Your task to perform on an android device: Open battery settings Image 0: 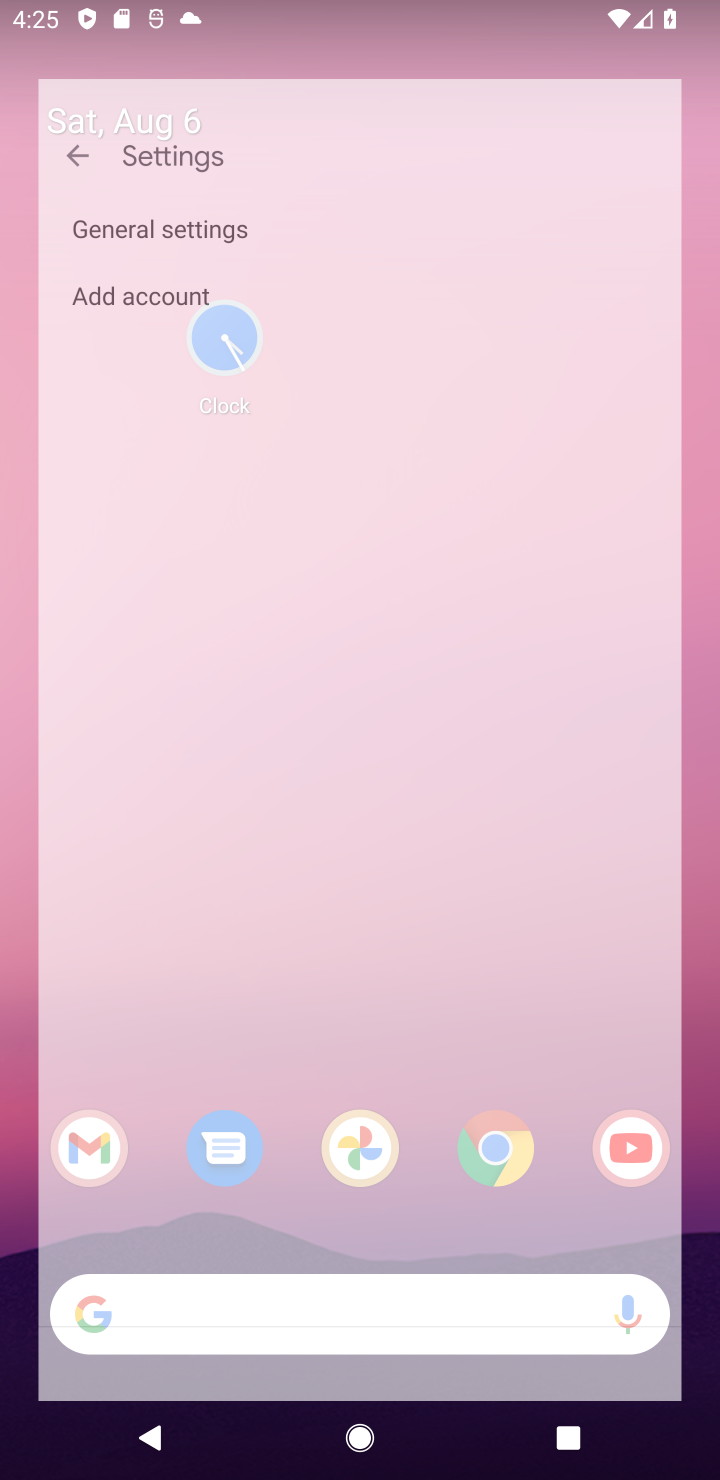
Step 0: drag from (420, 578) to (466, 364)
Your task to perform on an android device: Open battery settings Image 1: 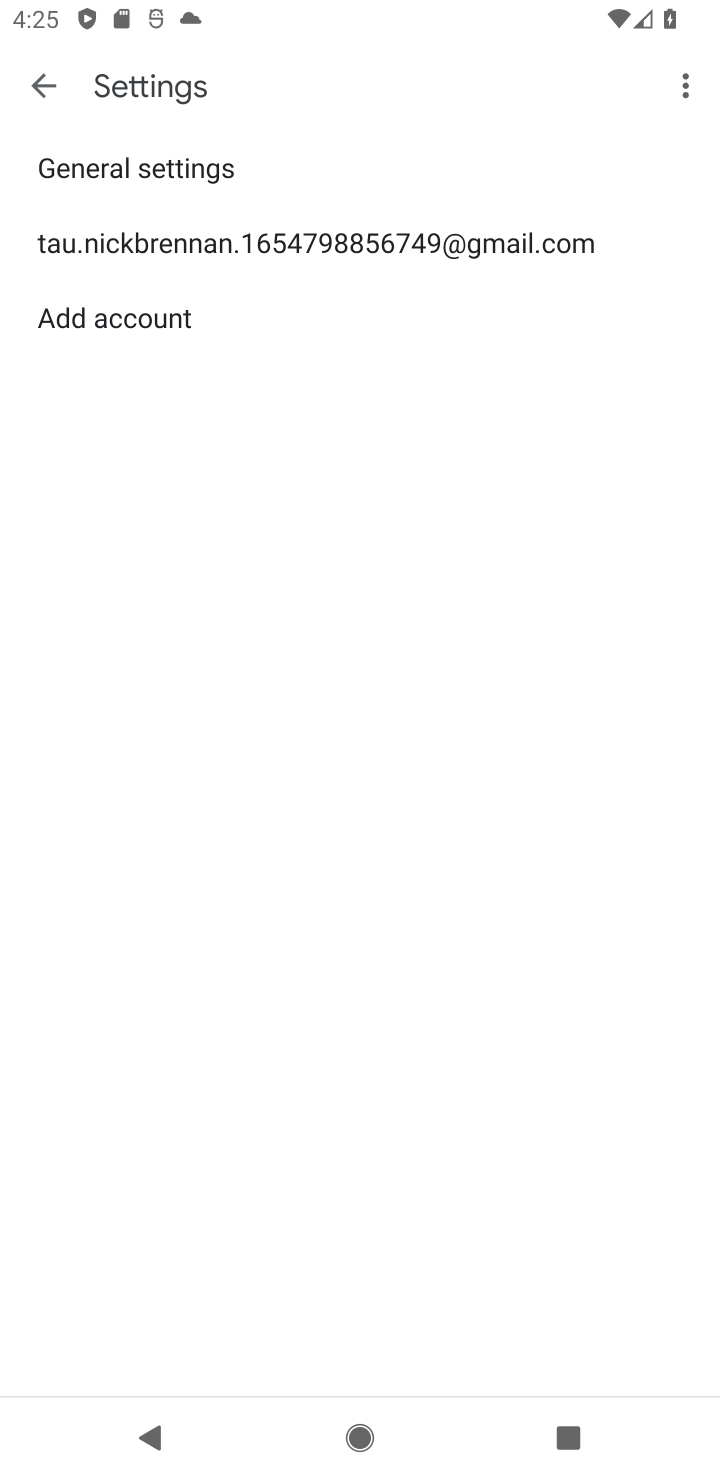
Step 1: press home button
Your task to perform on an android device: Open battery settings Image 2: 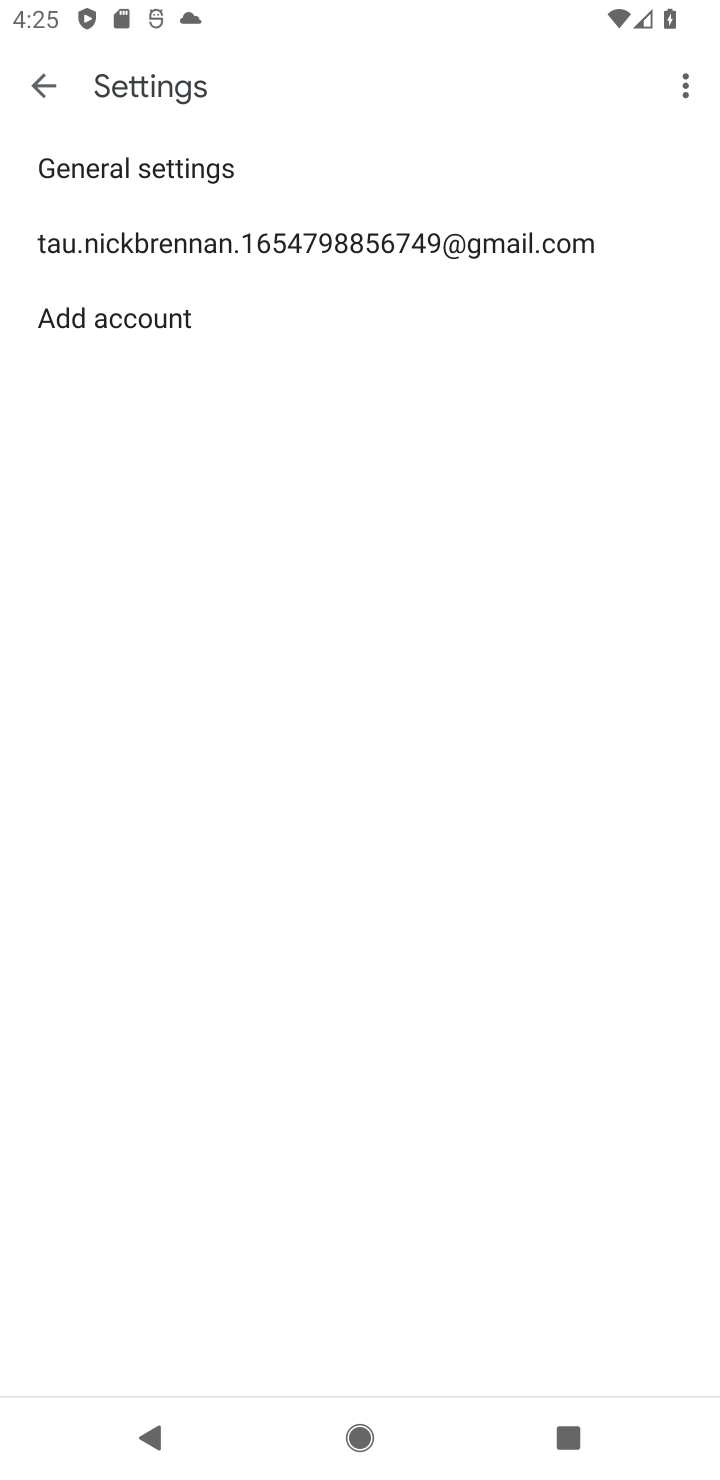
Step 2: press home button
Your task to perform on an android device: Open battery settings Image 3: 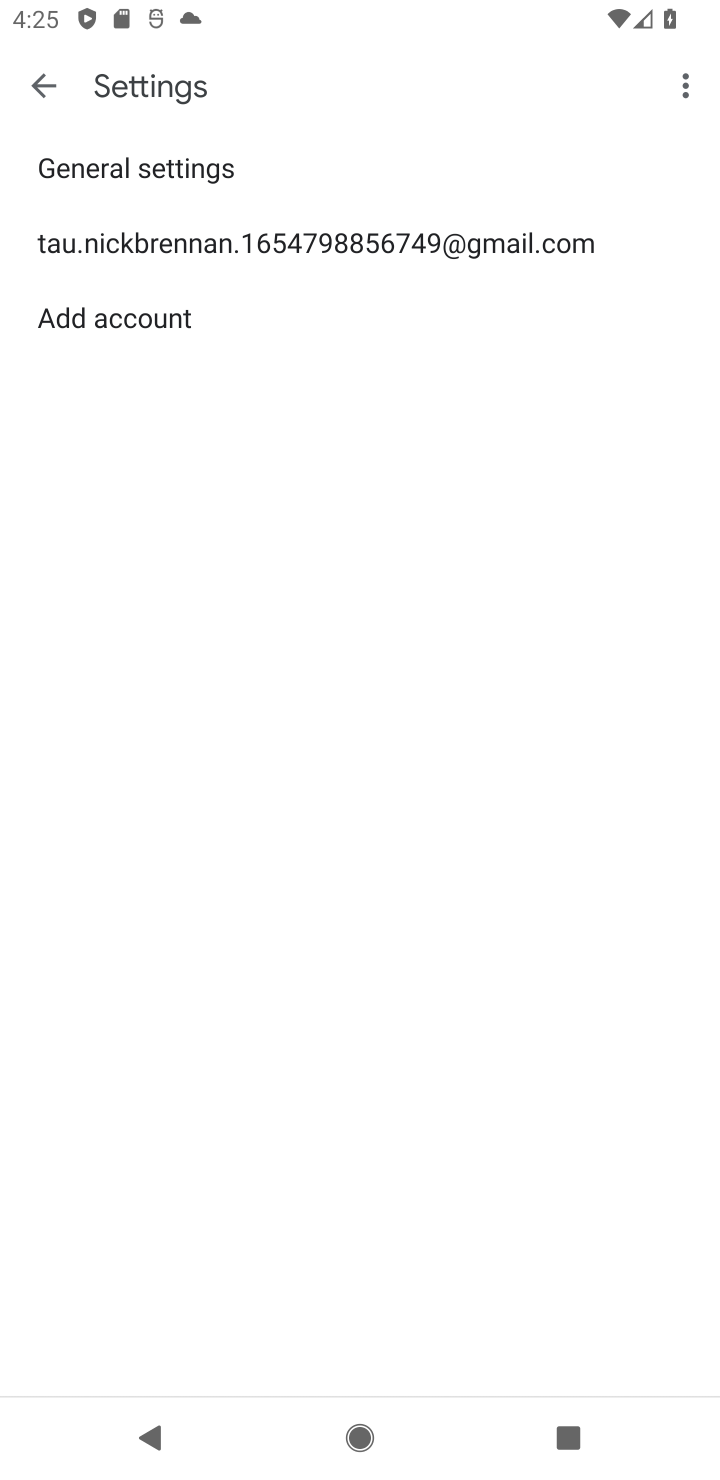
Step 3: press home button
Your task to perform on an android device: Open battery settings Image 4: 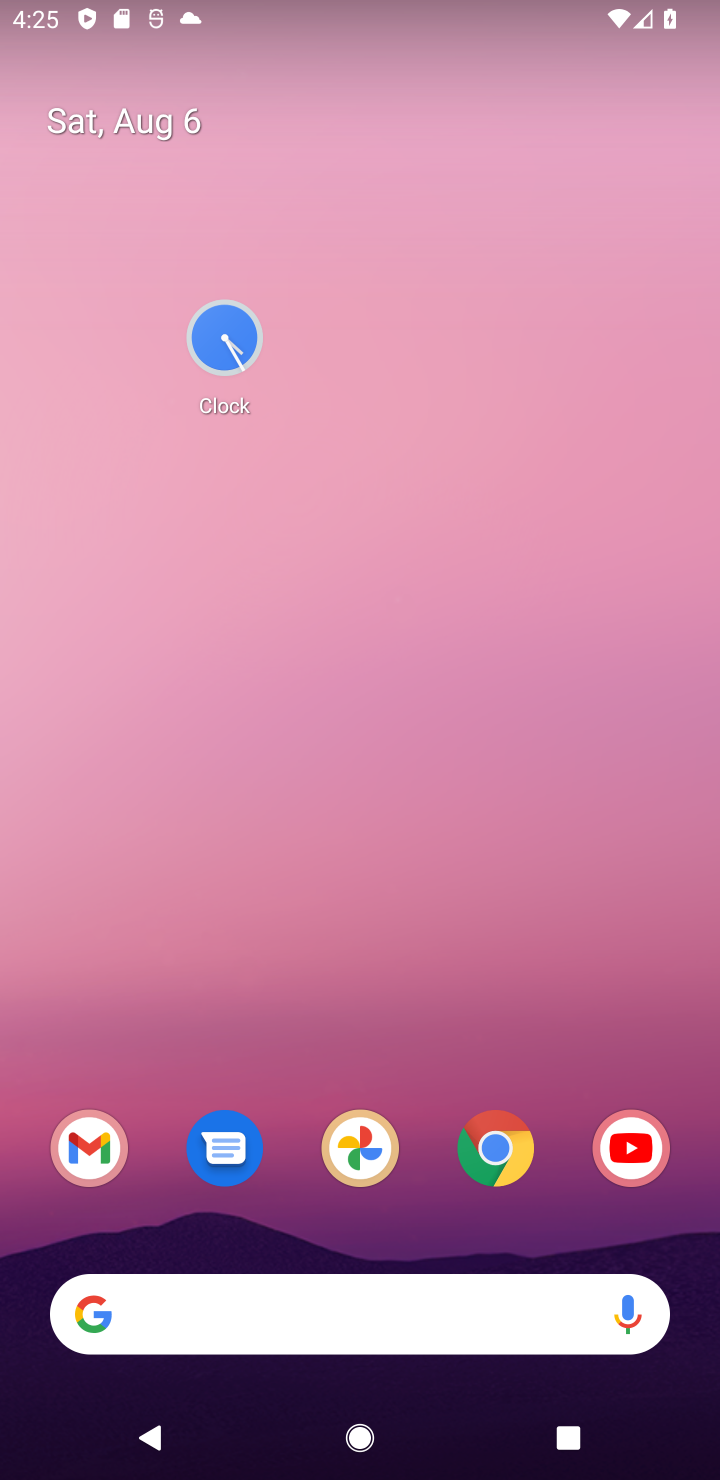
Step 4: drag from (309, 861) to (350, 65)
Your task to perform on an android device: Open battery settings Image 5: 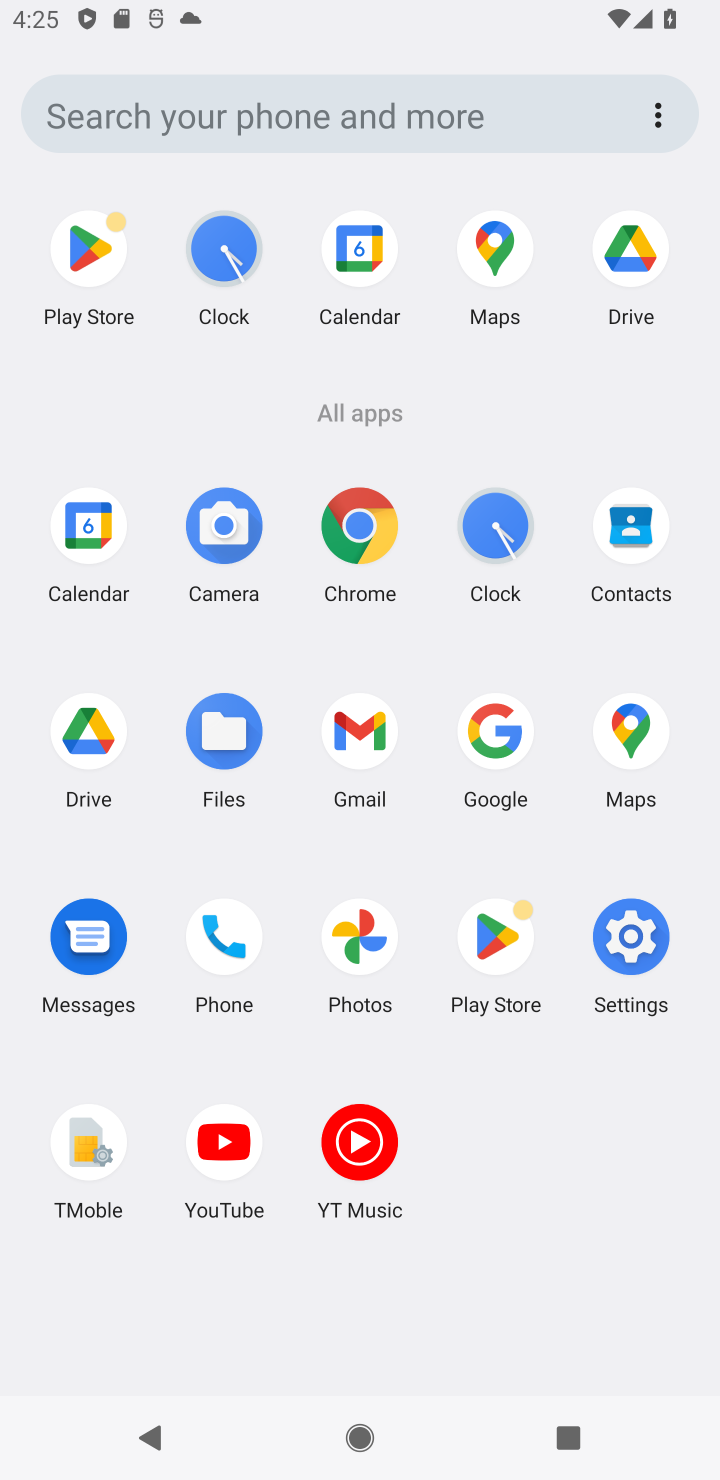
Step 5: click (615, 938)
Your task to perform on an android device: Open battery settings Image 6: 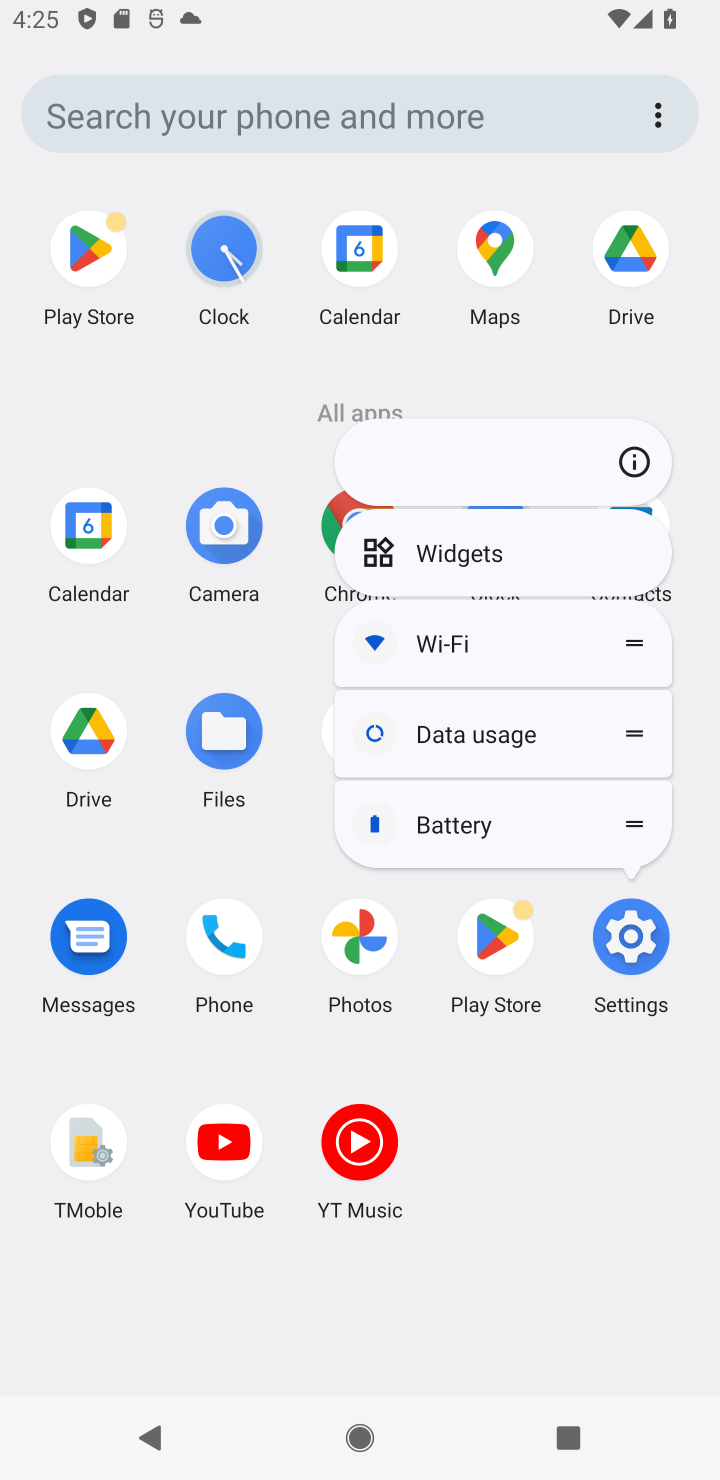
Step 6: click (619, 470)
Your task to perform on an android device: Open battery settings Image 7: 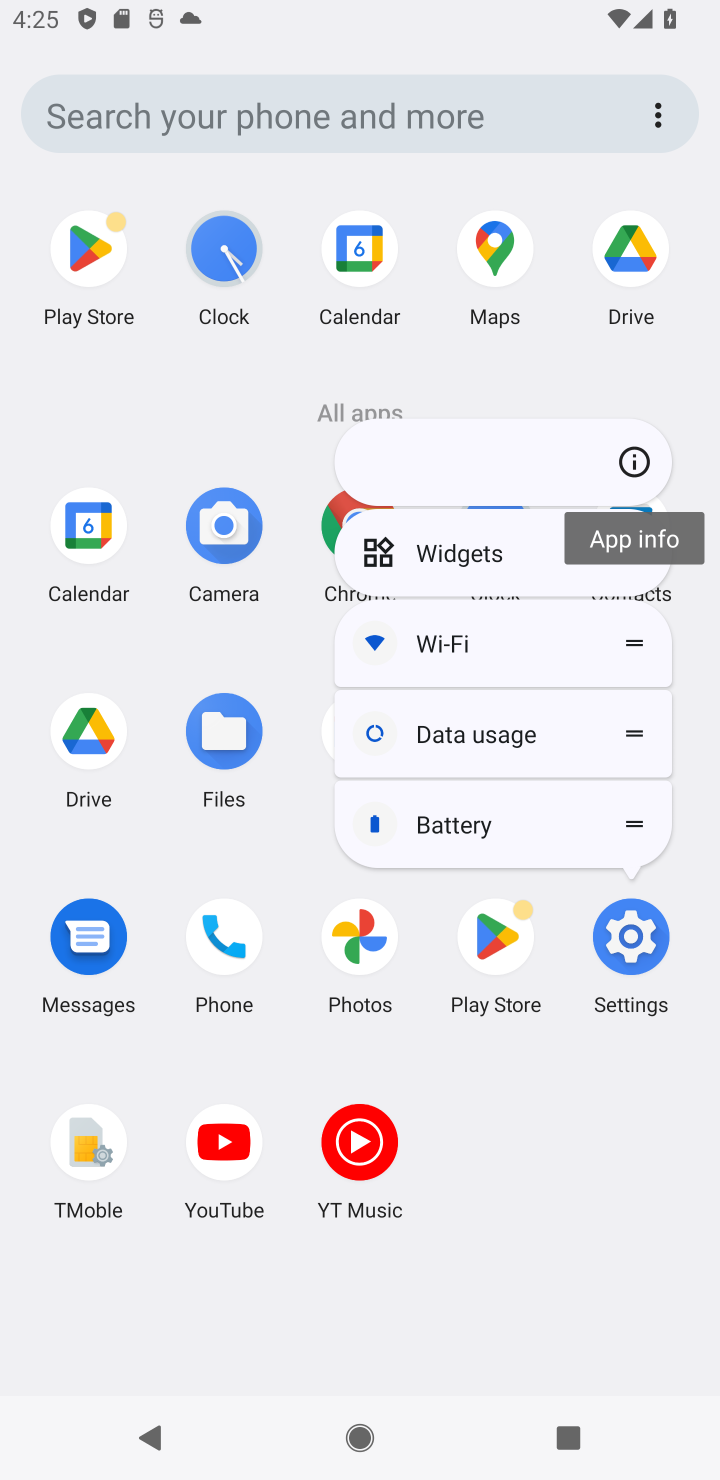
Step 7: click (633, 456)
Your task to perform on an android device: Open battery settings Image 8: 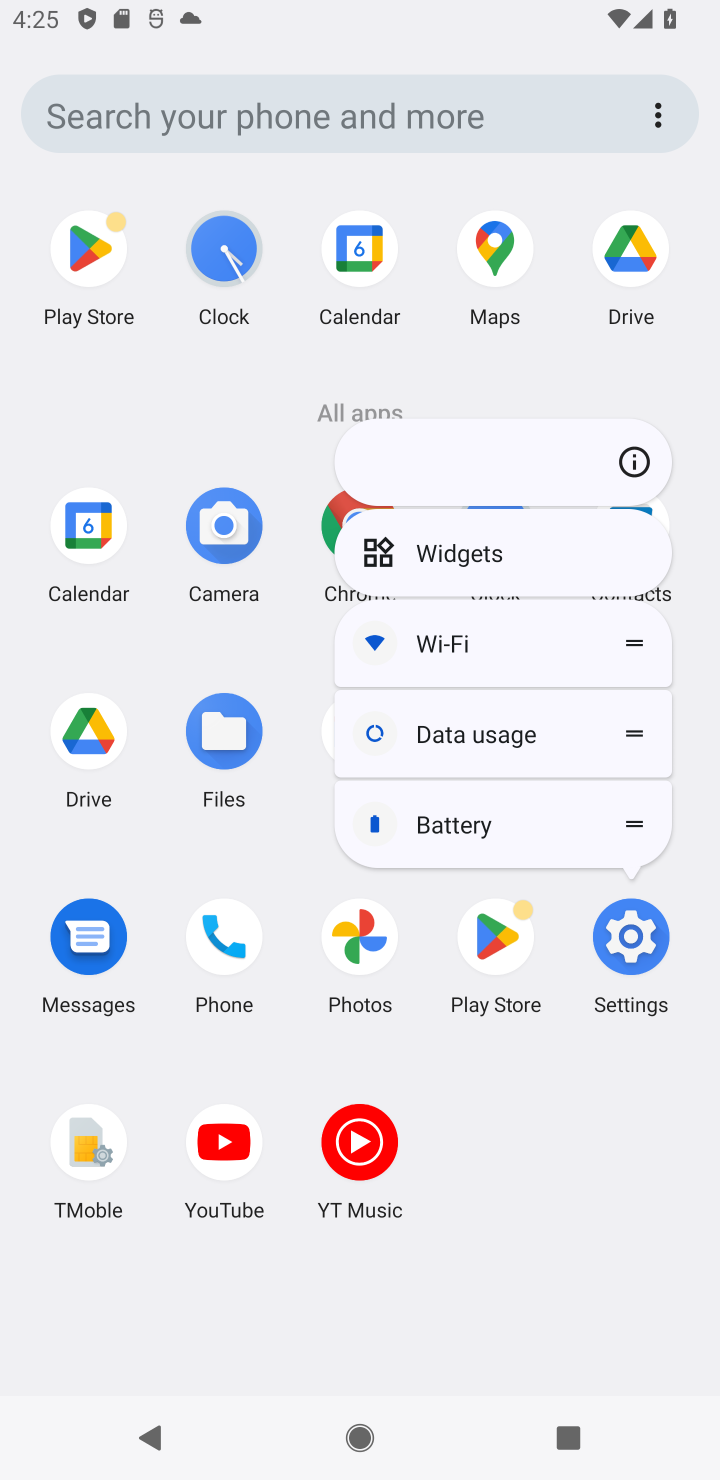
Step 8: click (639, 466)
Your task to perform on an android device: Open battery settings Image 9: 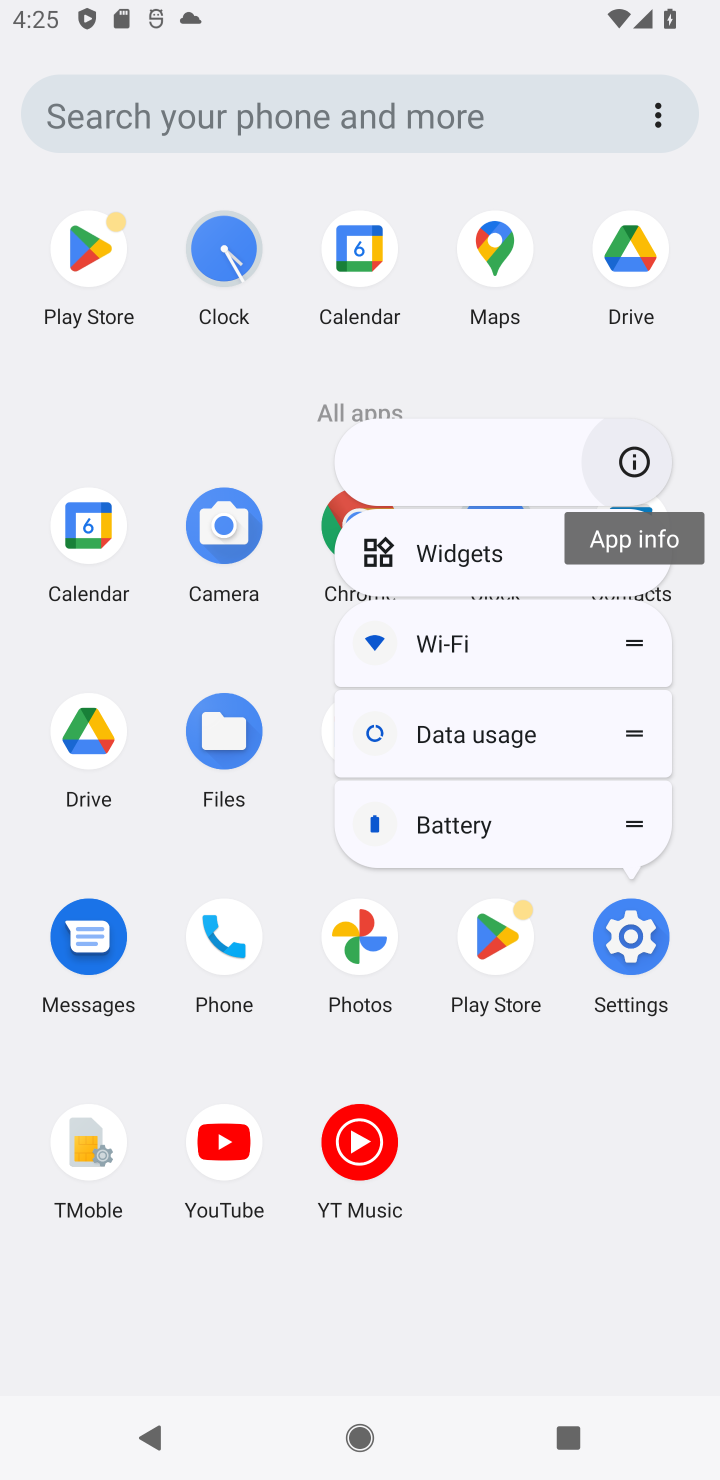
Step 9: click (641, 464)
Your task to perform on an android device: Open battery settings Image 10: 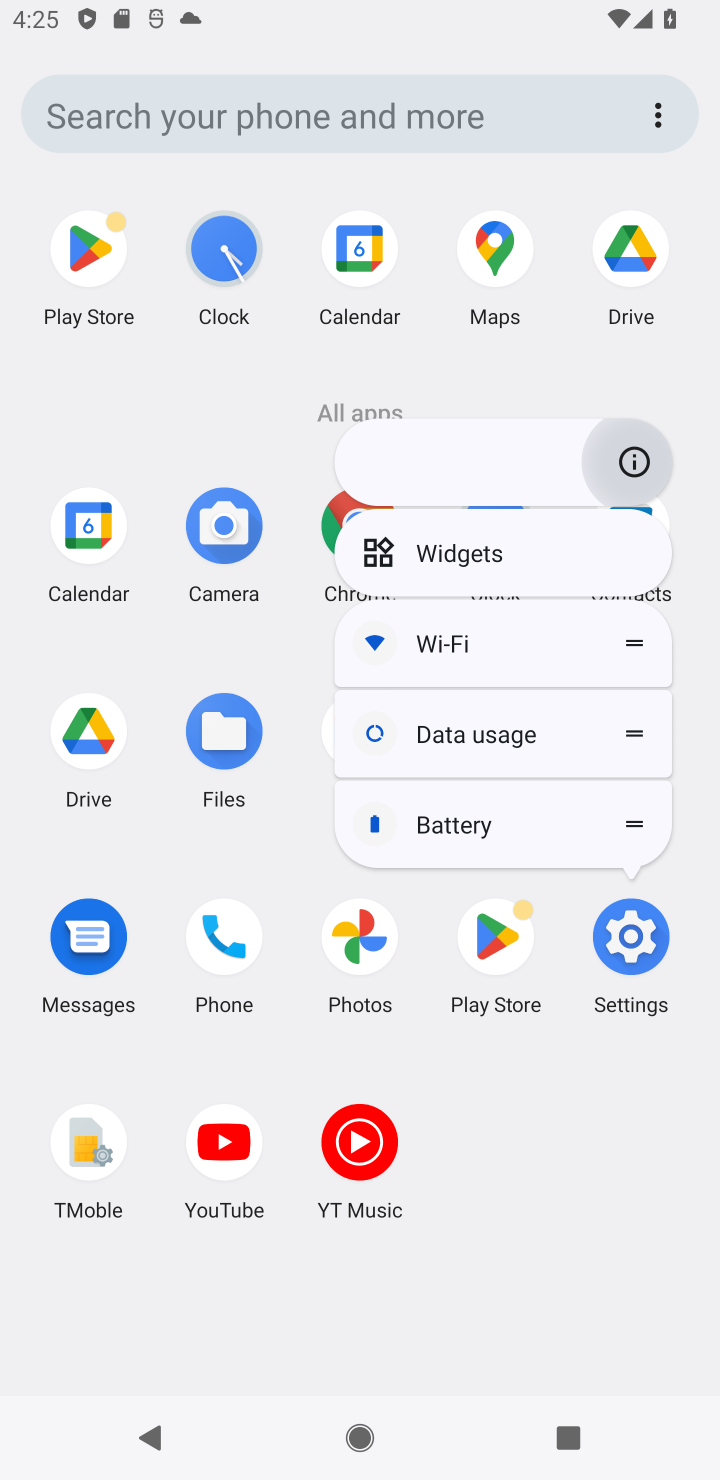
Step 10: click (641, 464)
Your task to perform on an android device: Open battery settings Image 11: 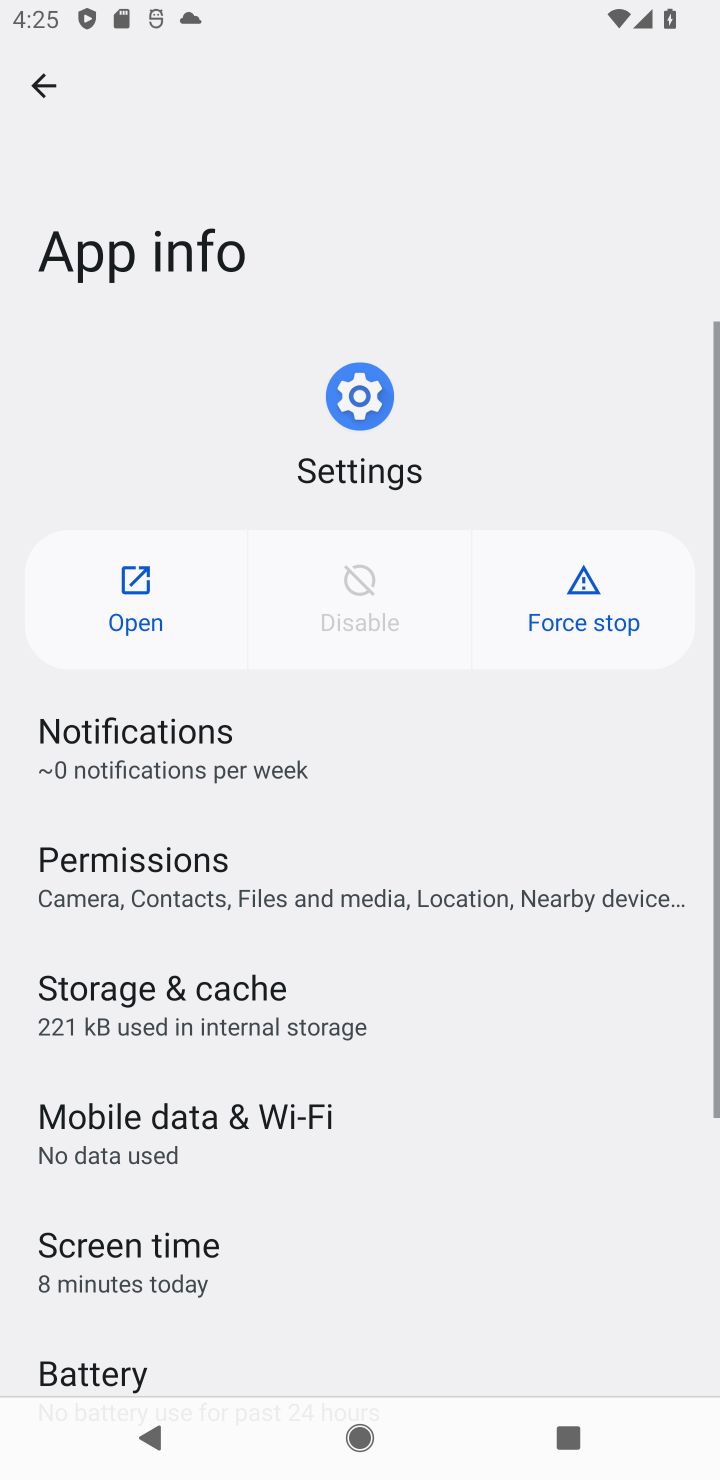
Step 11: click (127, 601)
Your task to perform on an android device: Open battery settings Image 12: 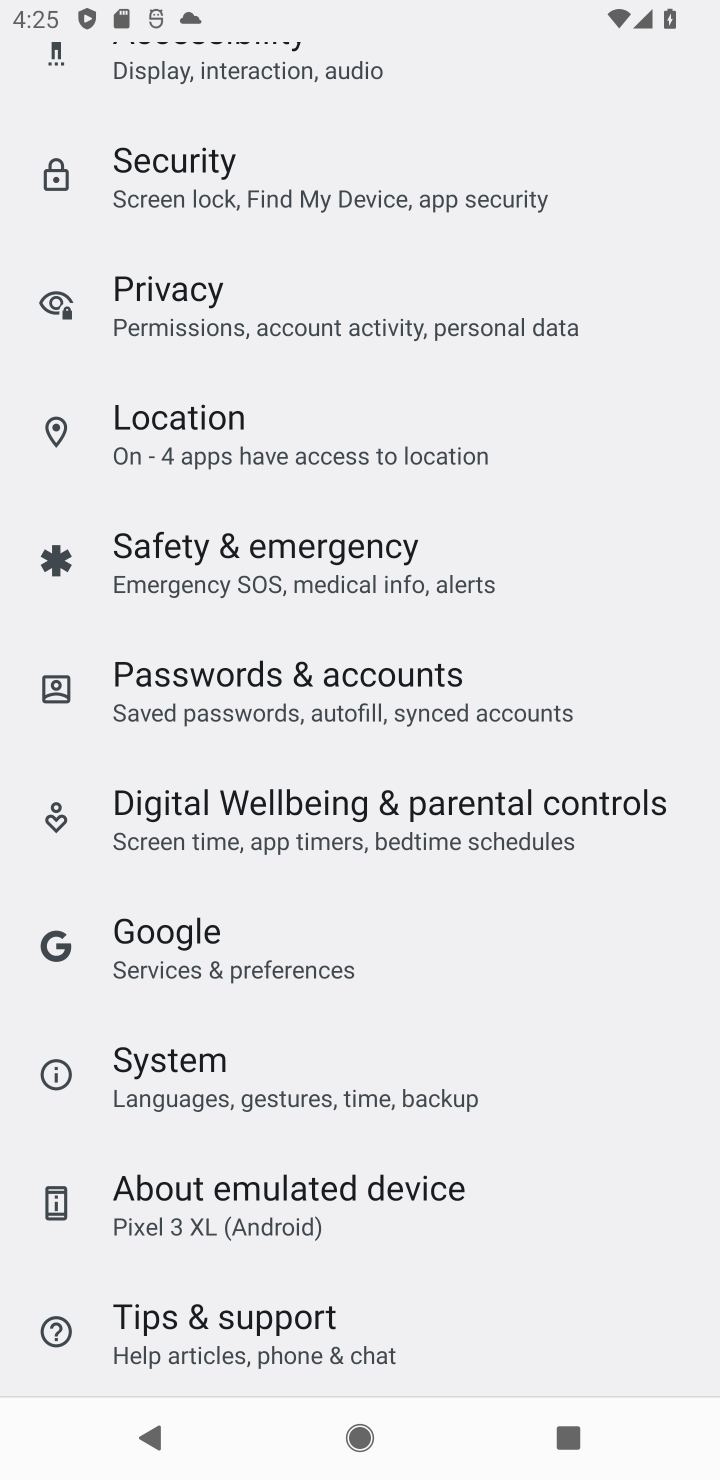
Step 12: drag from (315, 392) to (355, 1228)
Your task to perform on an android device: Open battery settings Image 13: 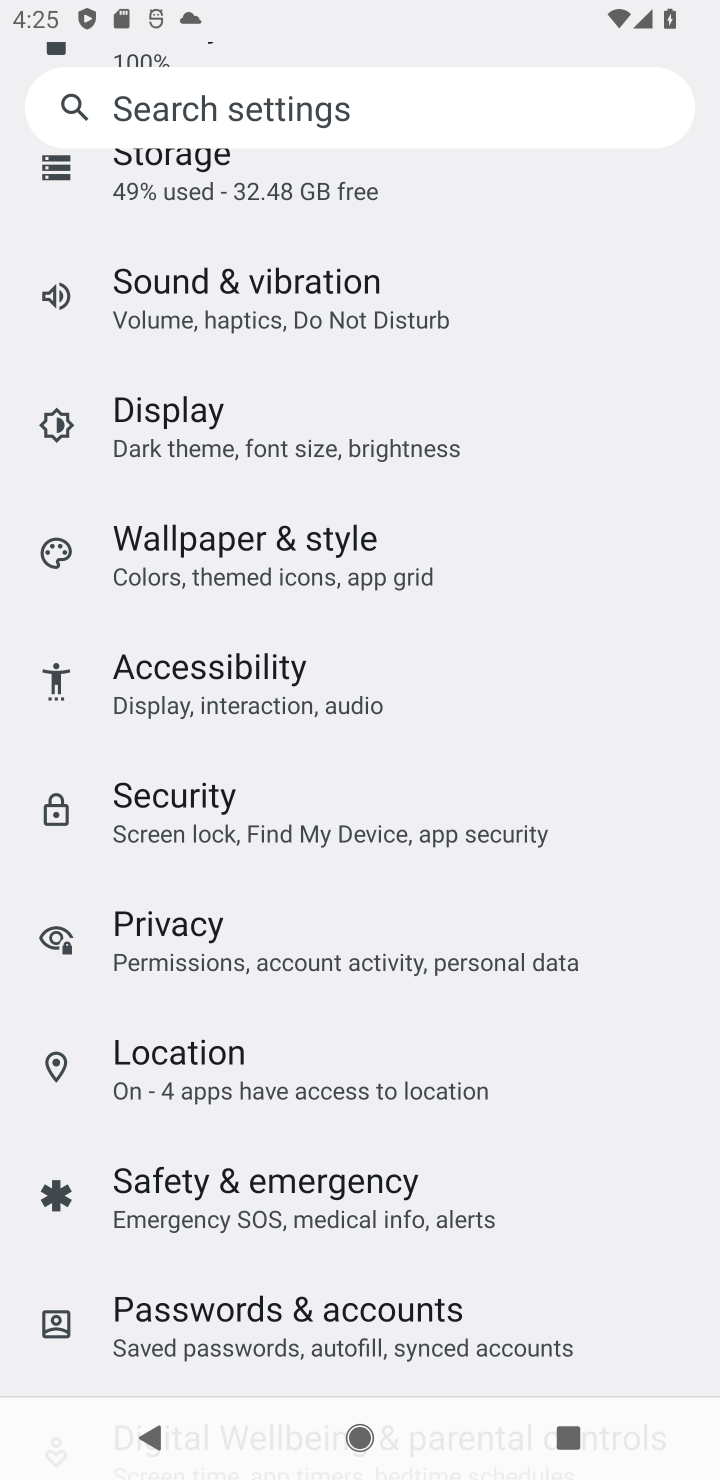
Step 13: drag from (304, 503) to (423, 1137)
Your task to perform on an android device: Open battery settings Image 14: 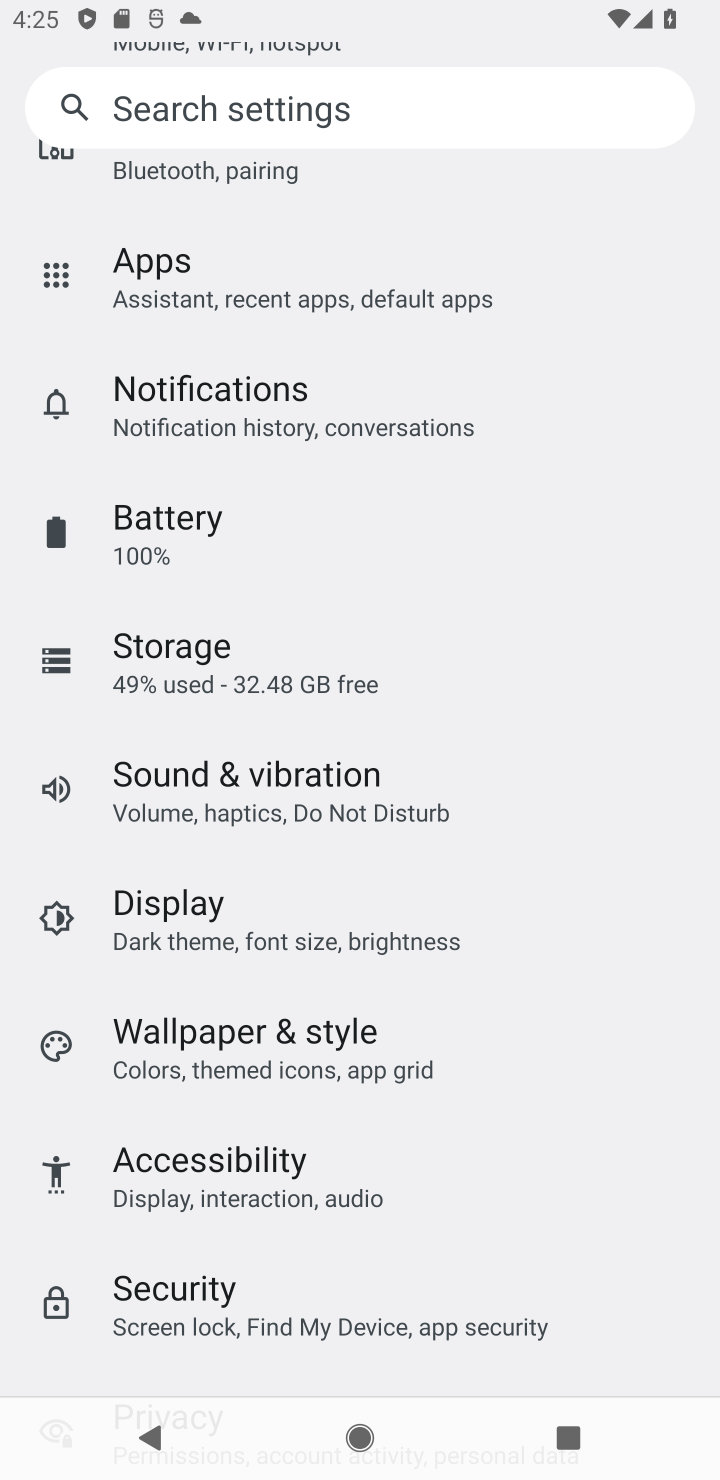
Step 14: click (234, 518)
Your task to perform on an android device: Open battery settings Image 15: 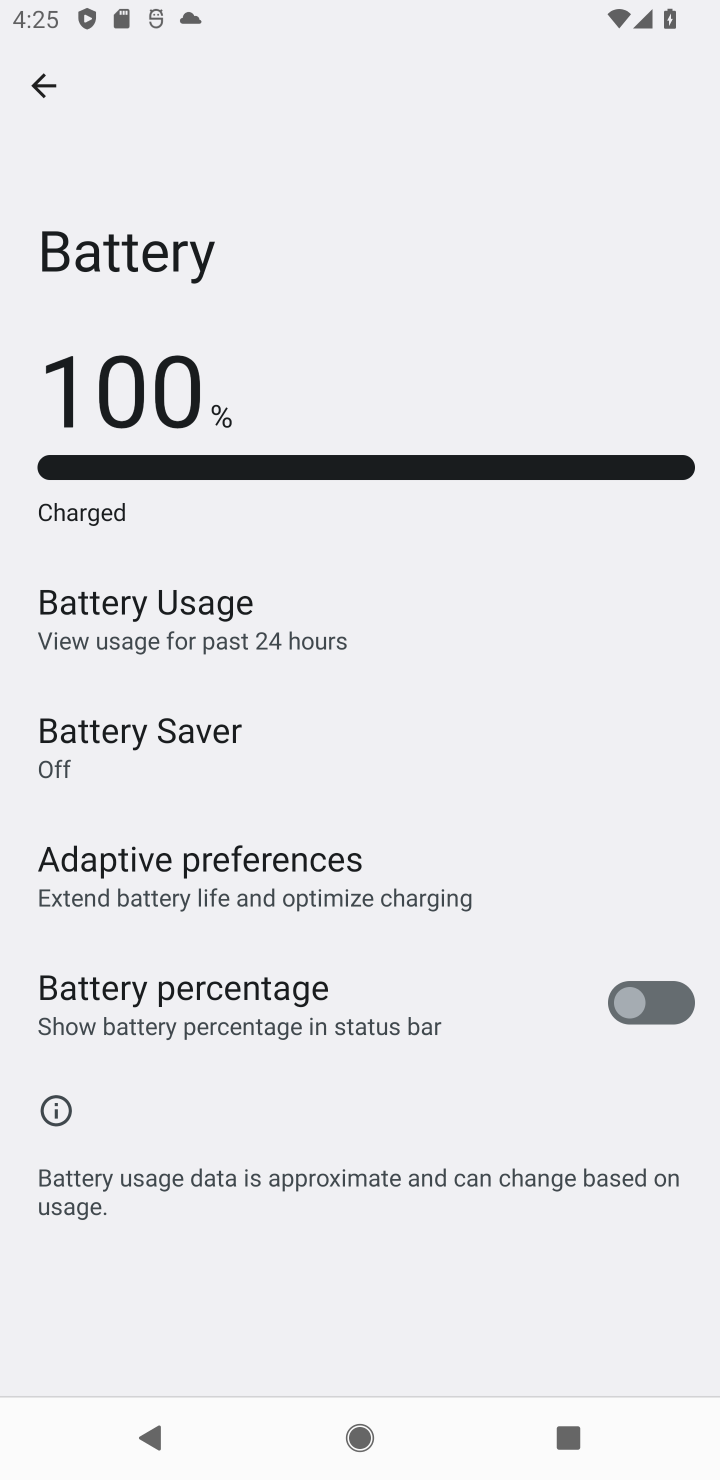
Step 15: task complete